Your task to perform on an android device: all mails in gmail Image 0: 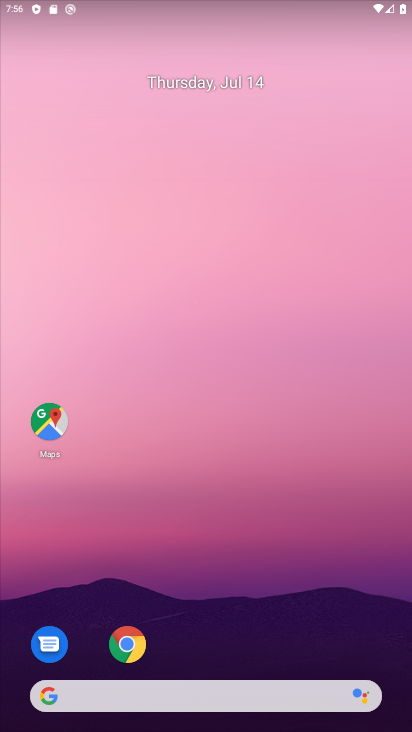
Step 0: drag from (207, 618) to (261, 269)
Your task to perform on an android device: all mails in gmail Image 1: 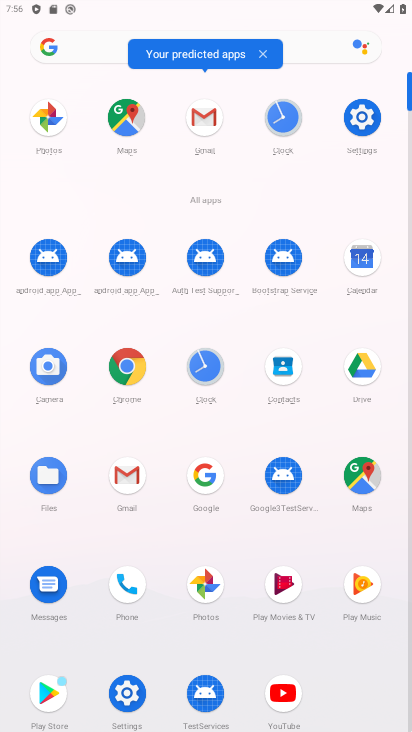
Step 1: click (124, 478)
Your task to perform on an android device: all mails in gmail Image 2: 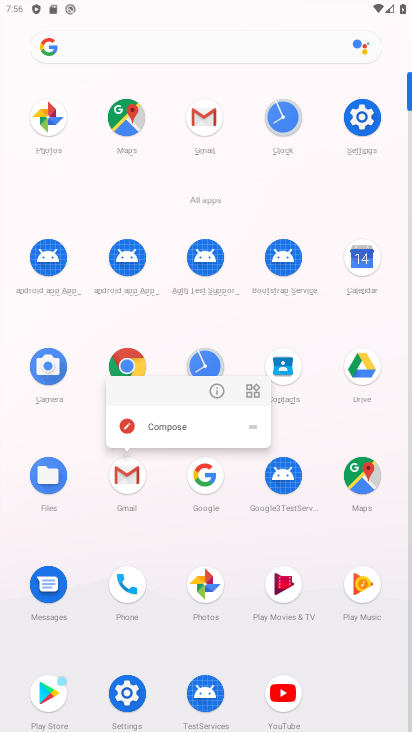
Step 2: click (220, 386)
Your task to perform on an android device: all mails in gmail Image 3: 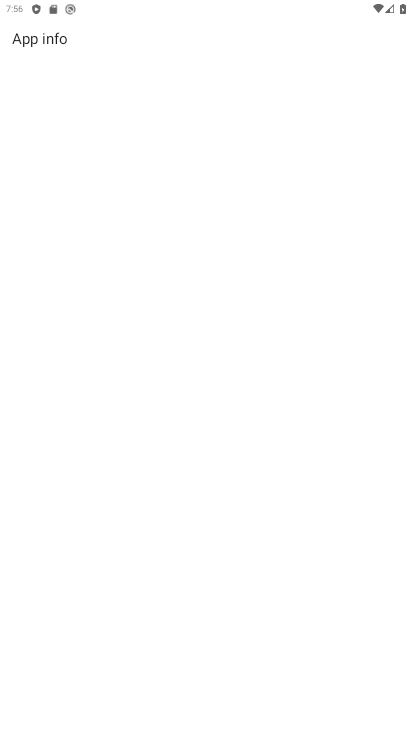
Step 3: drag from (206, 658) to (228, 219)
Your task to perform on an android device: all mails in gmail Image 4: 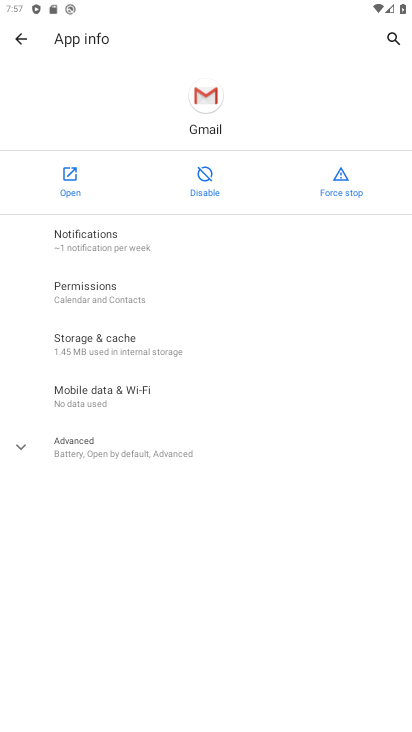
Step 4: click (76, 183)
Your task to perform on an android device: all mails in gmail Image 5: 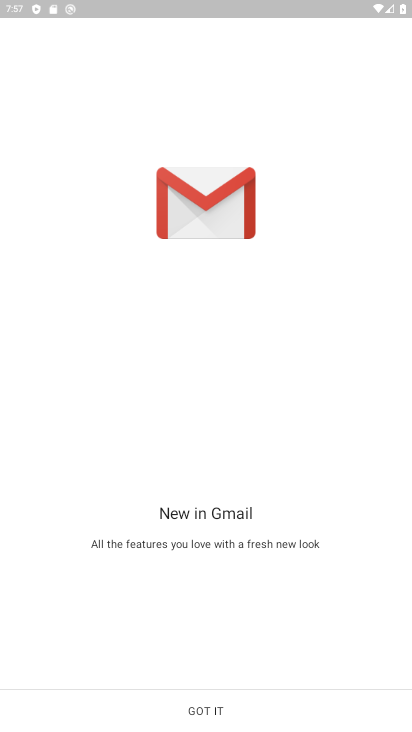
Step 5: drag from (110, 167) to (247, 660)
Your task to perform on an android device: all mails in gmail Image 6: 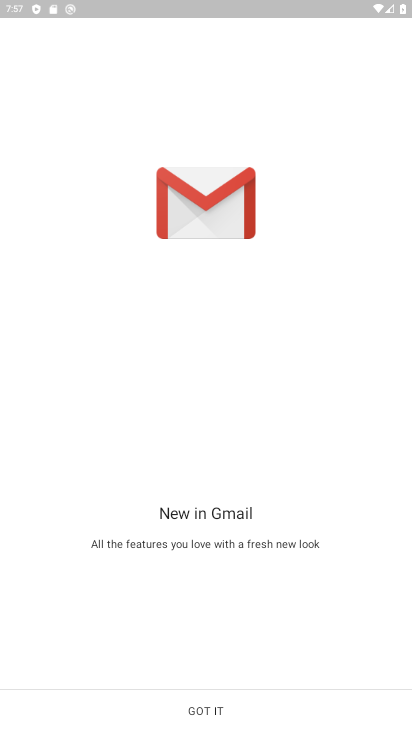
Step 6: click (197, 697)
Your task to perform on an android device: all mails in gmail Image 7: 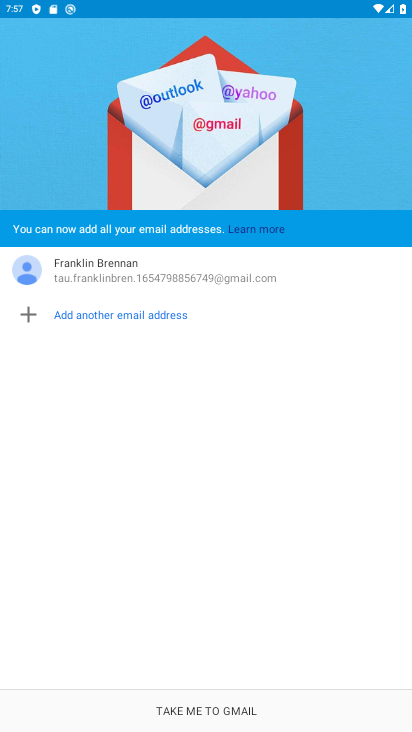
Step 7: click (209, 704)
Your task to perform on an android device: all mails in gmail Image 8: 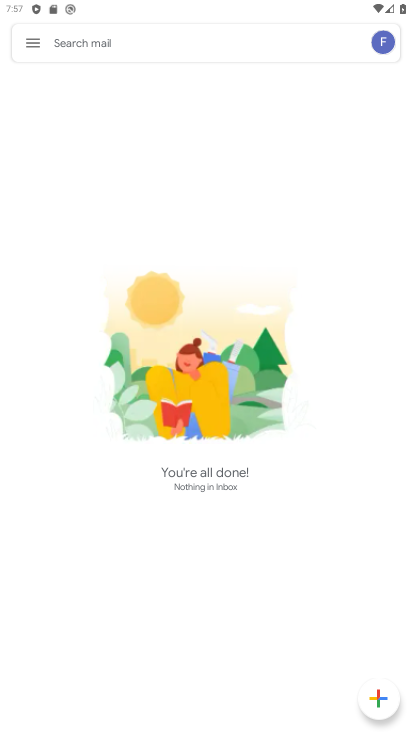
Step 8: drag from (170, 673) to (222, 456)
Your task to perform on an android device: all mails in gmail Image 9: 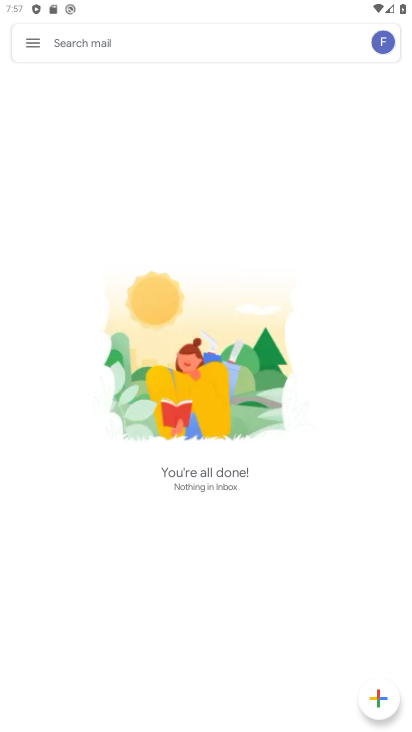
Step 9: drag from (168, 406) to (314, 6)
Your task to perform on an android device: all mails in gmail Image 10: 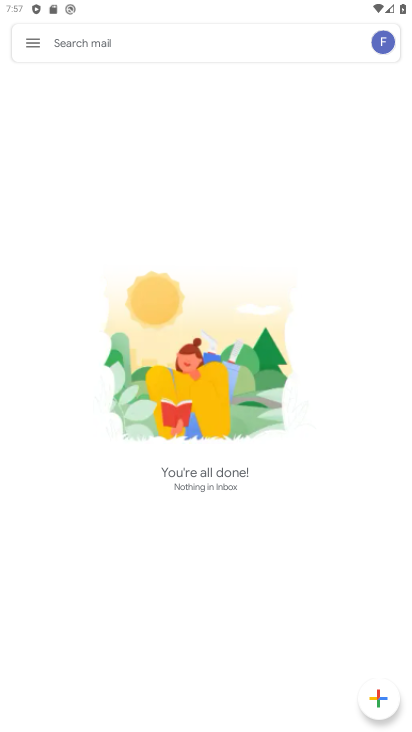
Step 10: drag from (185, 617) to (226, 510)
Your task to perform on an android device: all mails in gmail Image 11: 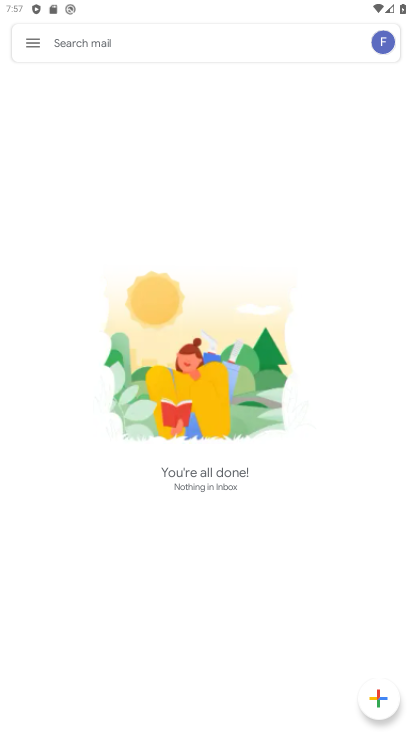
Step 11: click (36, 46)
Your task to perform on an android device: all mails in gmail Image 12: 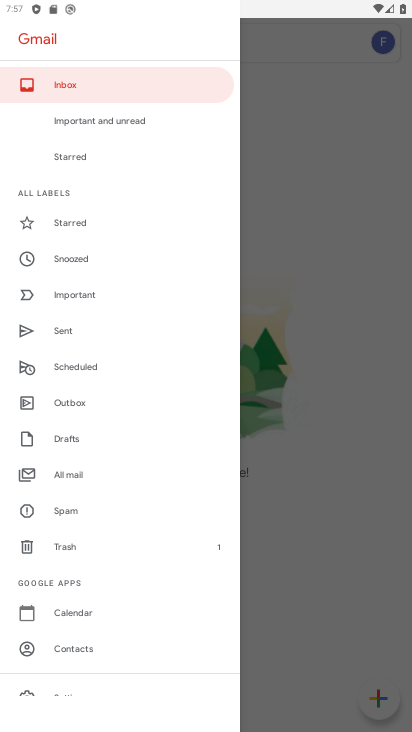
Step 12: click (57, 478)
Your task to perform on an android device: all mails in gmail Image 13: 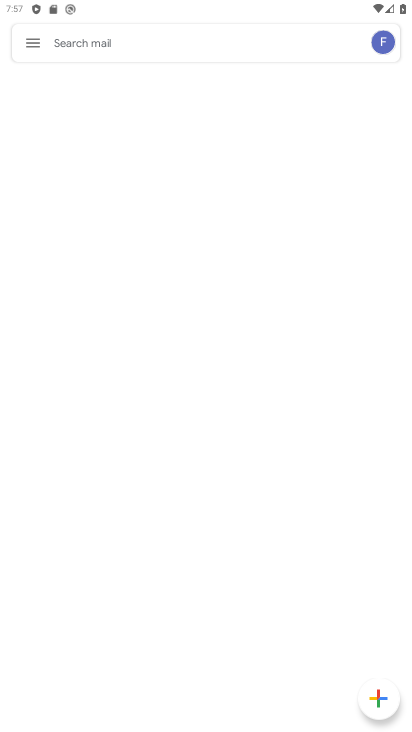
Step 13: task complete